Your task to perform on an android device: turn off location Image 0: 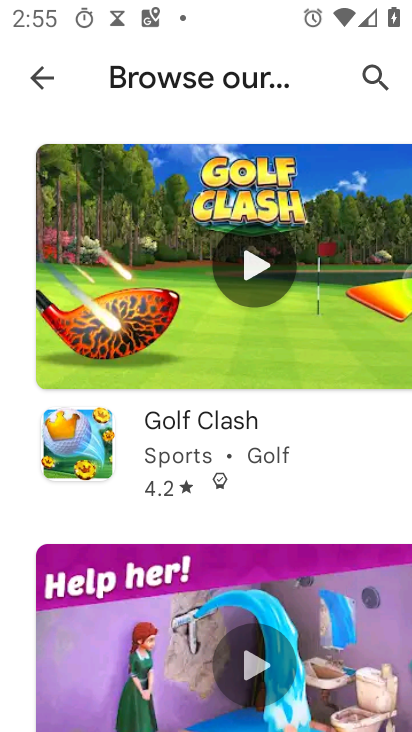
Step 0: drag from (188, 535) to (236, 194)
Your task to perform on an android device: turn off location Image 1: 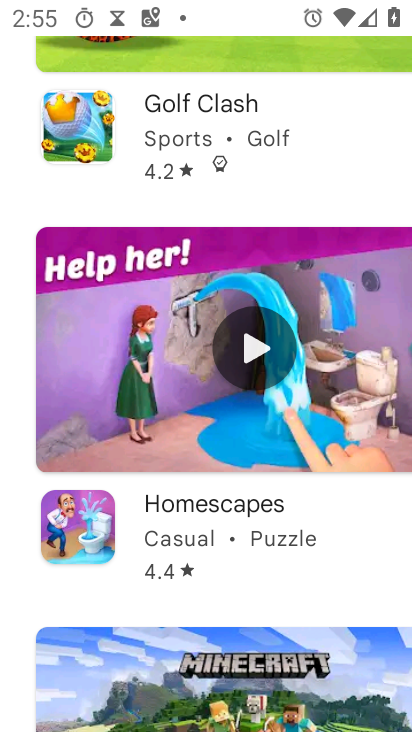
Step 1: press back button
Your task to perform on an android device: turn off location Image 2: 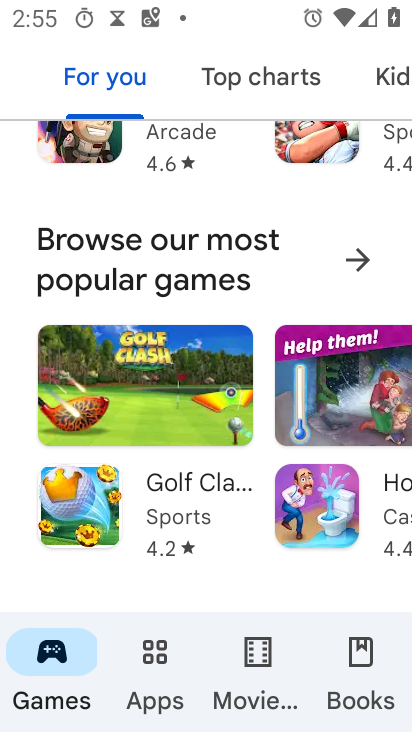
Step 2: press back button
Your task to perform on an android device: turn off location Image 3: 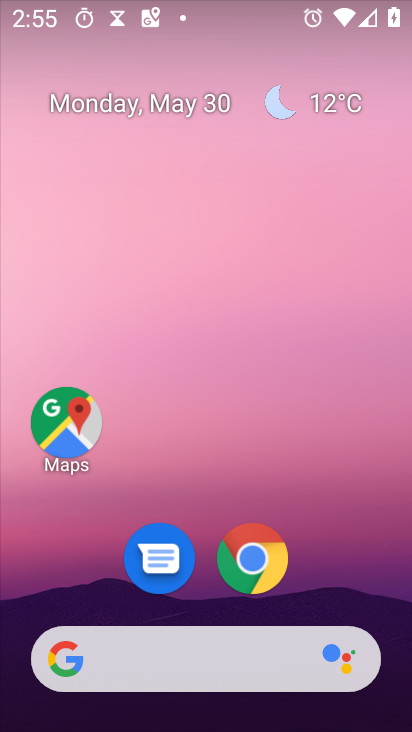
Step 3: drag from (186, 490) to (257, 47)
Your task to perform on an android device: turn off location Image 4: 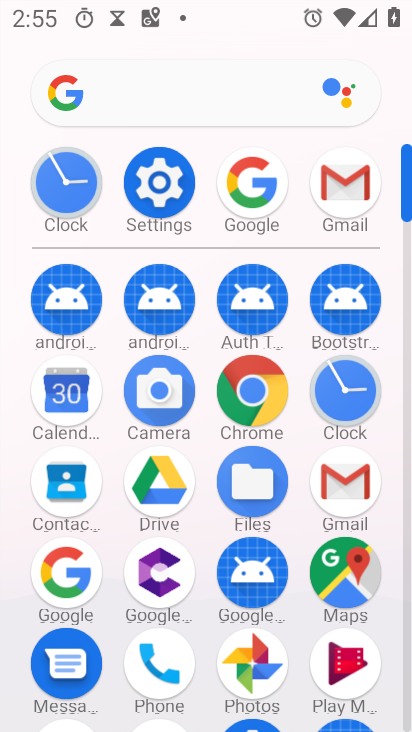
Step 4: click (160, 173)
Your task to perform on an android device: turn off location Image 5: 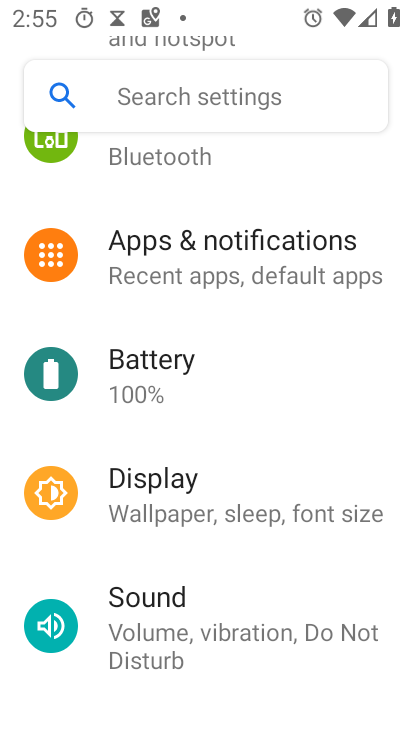
Step 5: drag from (167, 616) to (289, 51)
Your task to perform on an android device: turn off location Image 6: 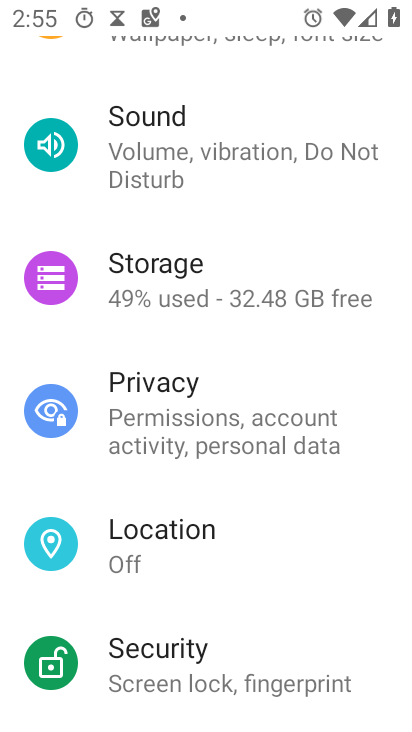
Step 6: click (160, 528)
Your task to perform on an android device: turn off location Image 7: 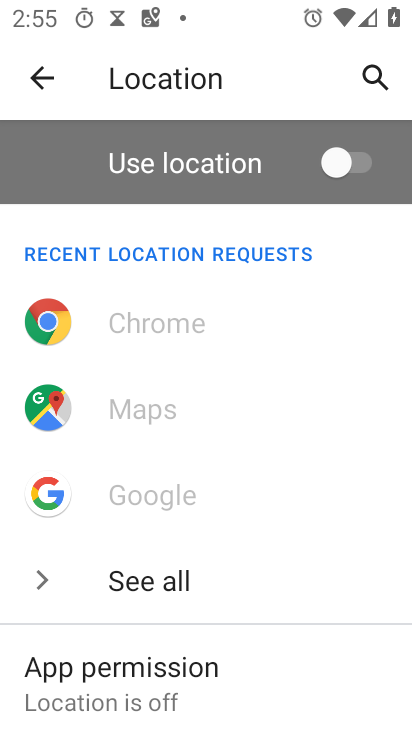
Step 7: task complete